Your task to perform on an android device: change text size in settings app Image 0: 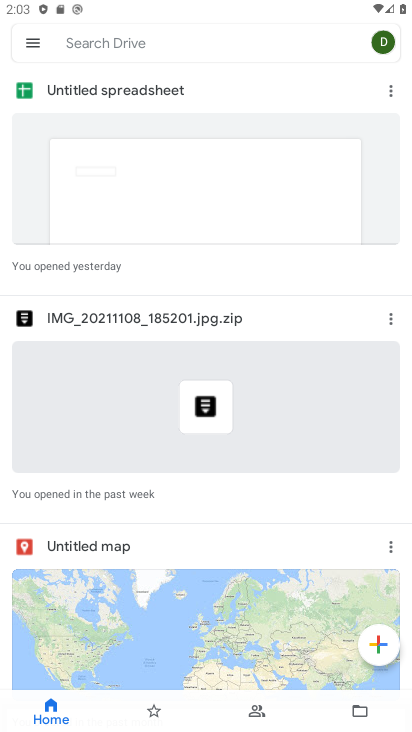
Step 0: press home button
Your task to perform on an android device: change text size in settings app Image 1: 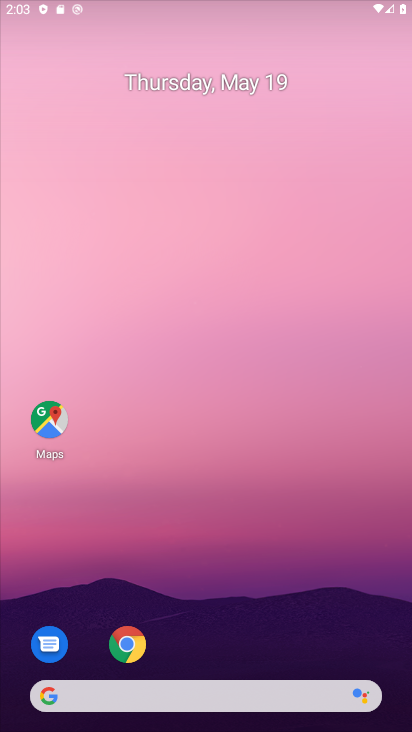
Step 1: drag from (296, 575) to (318, 240)
Your task to perform on an android device: change text size in settings app Image 2: 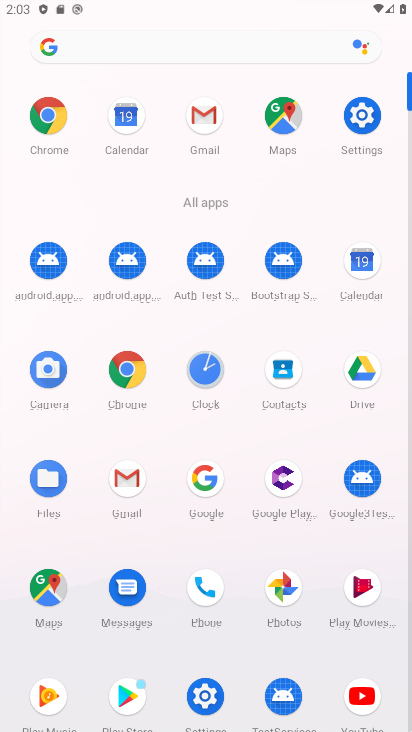
Step 2: click (206, 694)
Your task to perform on an android device: change text size in settings app Image 3: 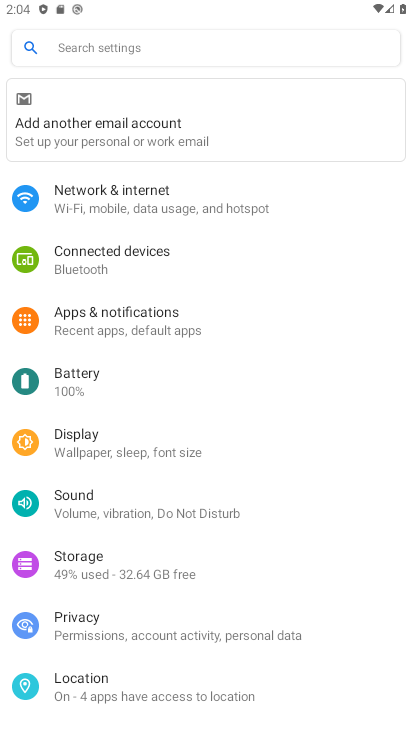
Step 3: drag from (103, 636) to (124, 367)
Your task to perform on an android device: change text size in settings app Image 4: 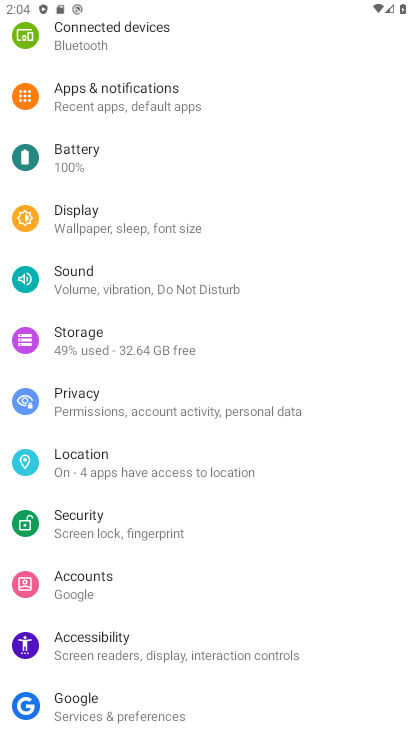
Step 4: click (133, 630)
Your task to perform on an android device: change text size in settings app Image 5: 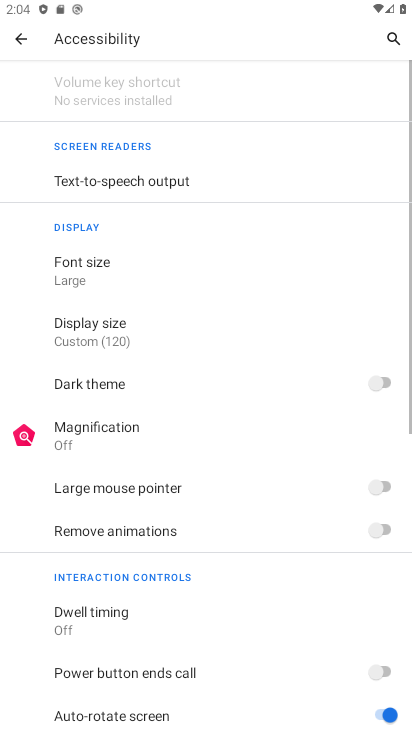
Step 5: click (65, 277)
Your task to perform on an android device: change text size in settings app Image 6: 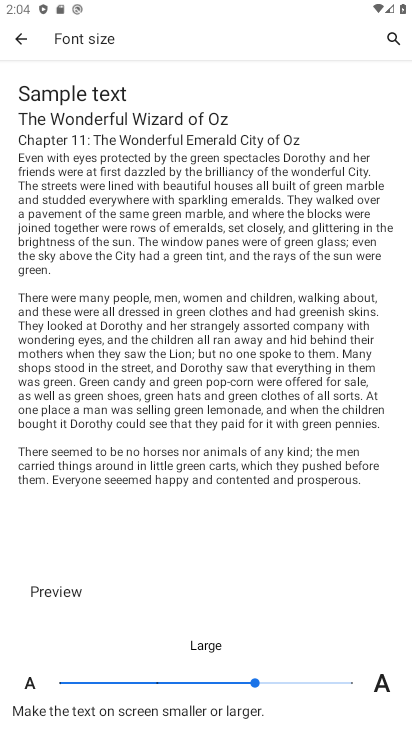
Step 6: click (199, 682)
Your task to perform on an android device: change text size in settings app Image 7: 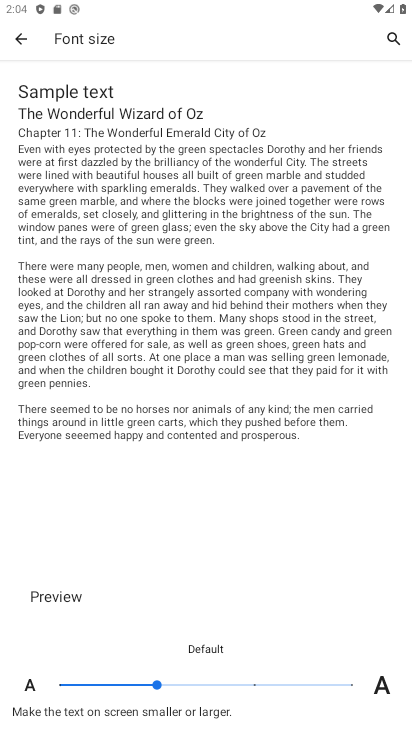
Step 7: click (174, 685)
Your task to perform on an android device: change text size in settings app Image 8: 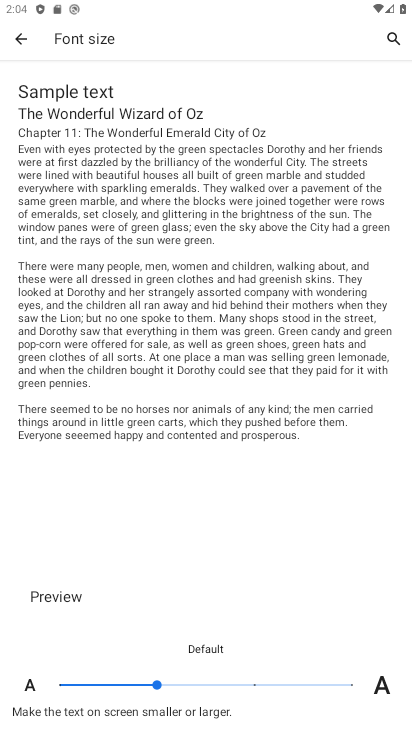
Step 8: task complete